Your task to perform on an android device: turn off wifi Image 0: 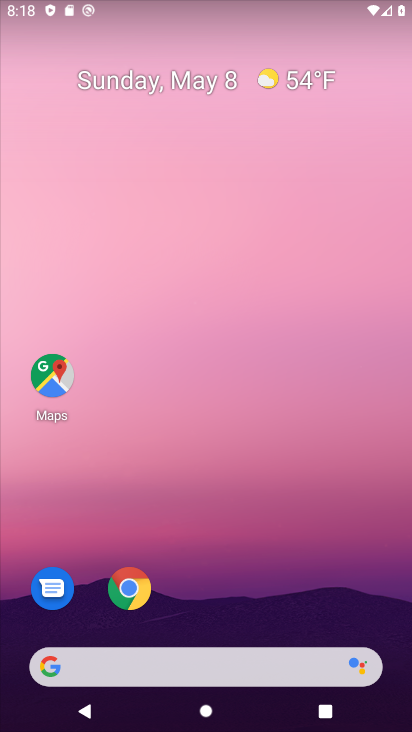
Step 0: drag from (55, 619) to (364, 198)
Your task to perform on an android device: turn off wifi Image 1: 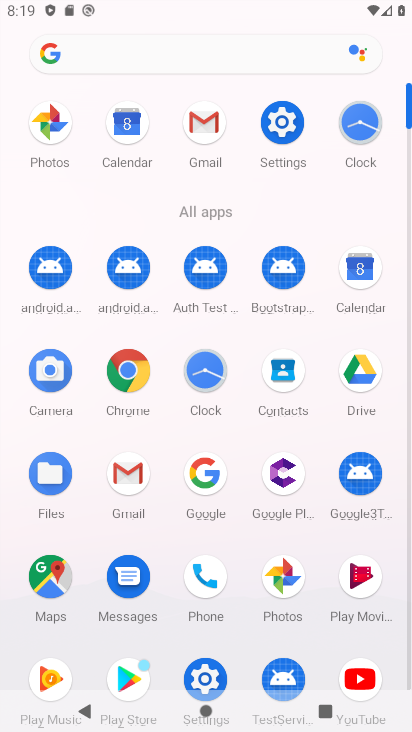
Step 1: click (265, 125)
Your task to perform on an android device: turn off wifi Image 2: 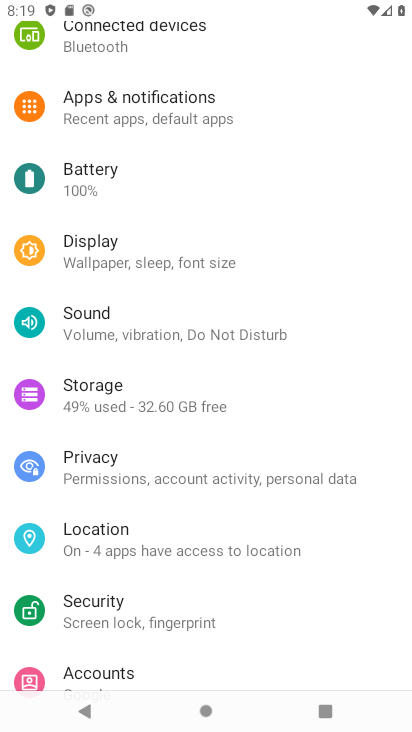
Step 2: drag from (185, 186) to (203, 440)
Your task to perform on an android device: turn off wifi Image 3: 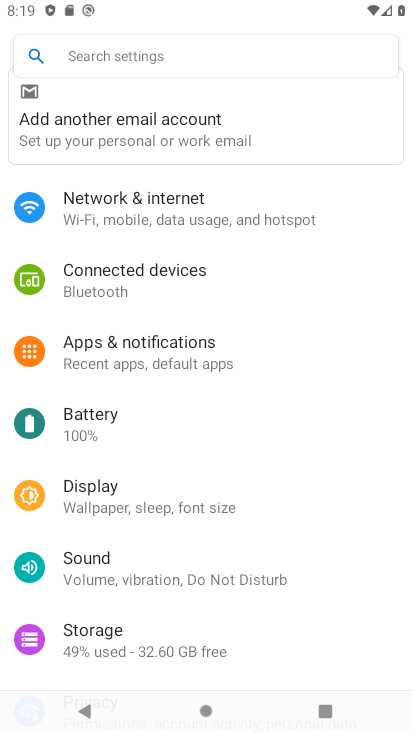
Step 3: click (184, 220)
Your task to perform on an android device: turn off wifi Image 4: 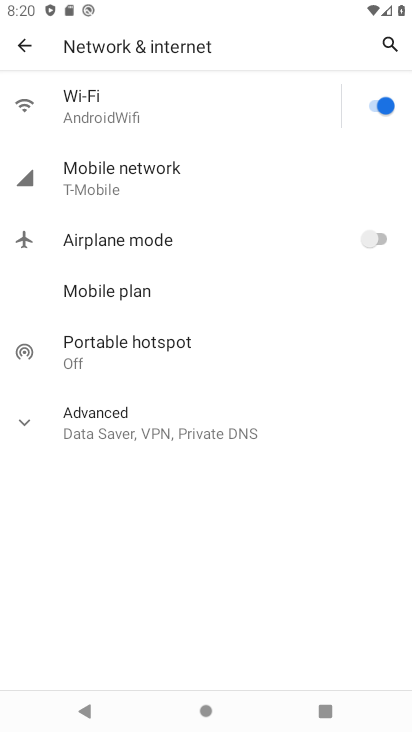
Step 4: click (381, 112)
Your task to perform on an android device: turn off wifi Image 5: 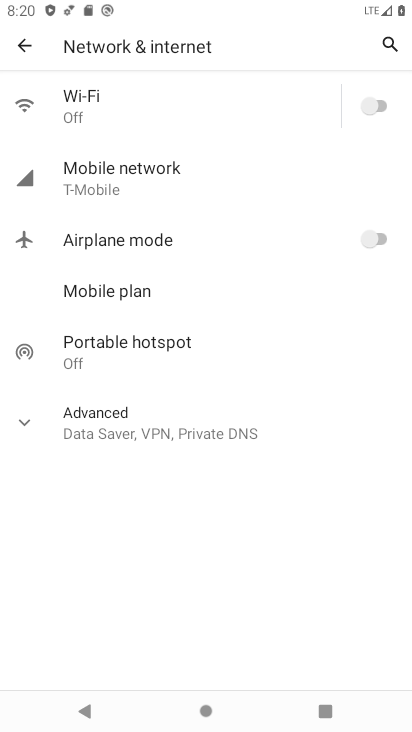
Step 5: task complete